Your task to perform on an android device: manage bookmarks in the chrome app Image 0: 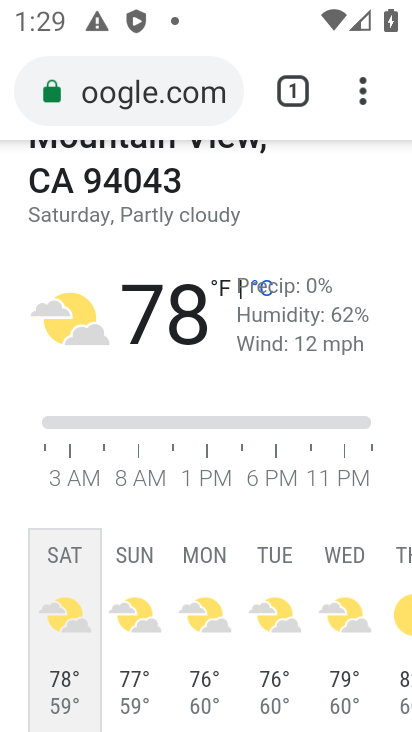
Step 0: click (369, 110)
Your task to perform on an android device: manage bookmarks in the chrome app Image 1: 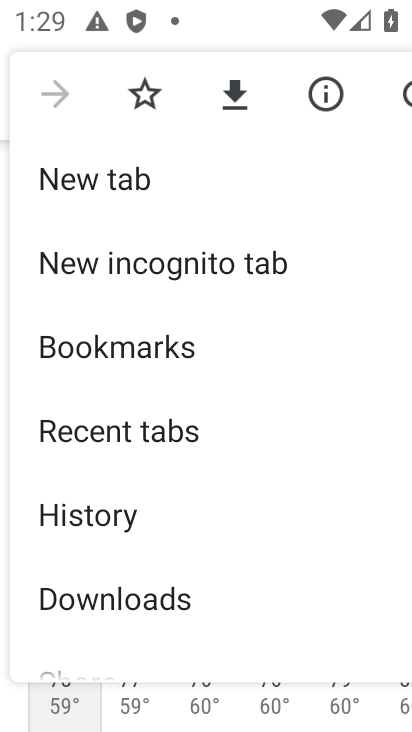
Step 1: click (179, 343)
Your task to perform on an android device: manage bookmarks in the chrome app Image 2: 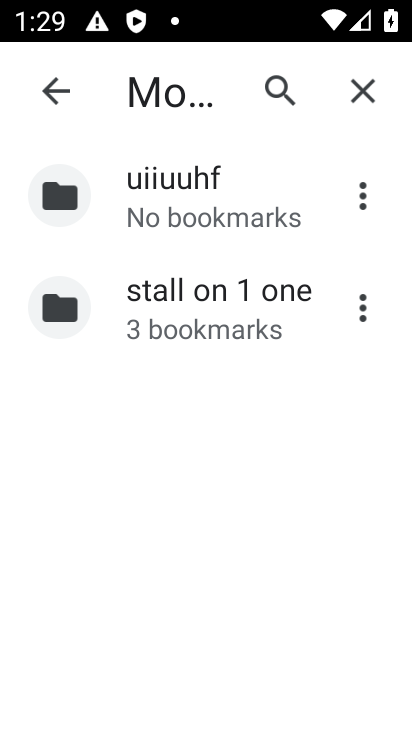
Step 2: click (198, 315)
Your task to perform on an android device: manage bookmarks in the chrome app Image 3: 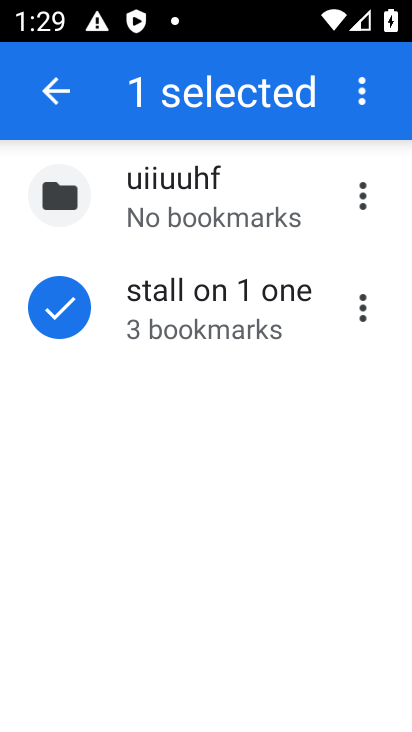
Step 3: click (362, 96)
Your task to perform on an android device: manage bookmarks in the chrome app Image 4: 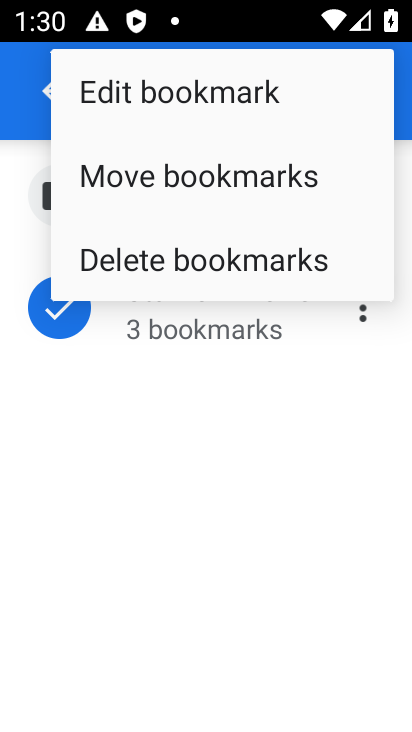
Step 4: click (283, 170)
Your task to perform on an android device: manage bookmarks in the chrome app Image 5: 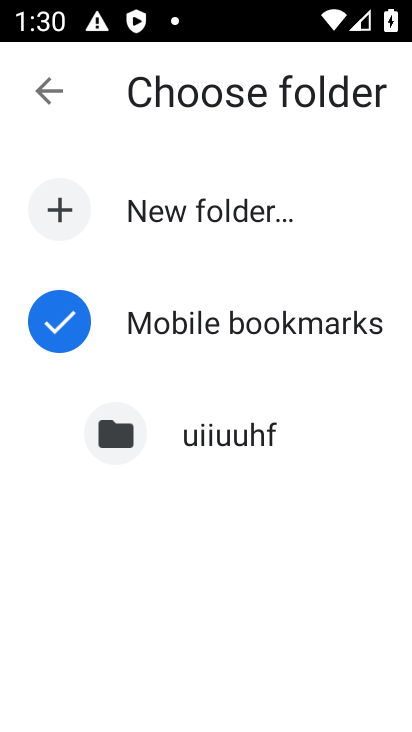
Step 5: click (252, 425)
Your task to perform on an android device: manage bookmarks in the chrome app Image 6: 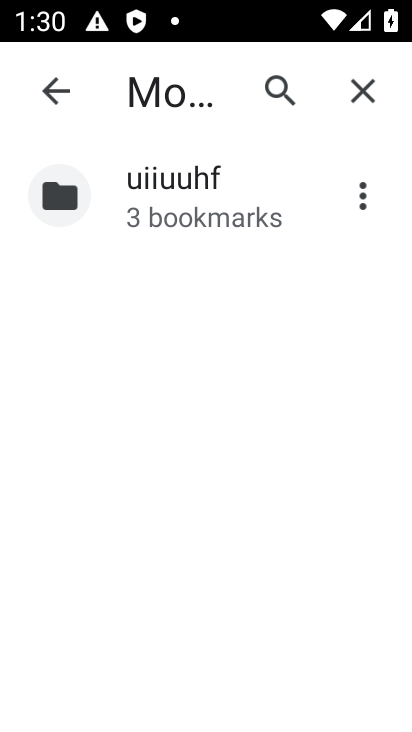
Step 6: task complete